Your task to perform on an android device: turn on showing notifications on the lock screen Image 0: 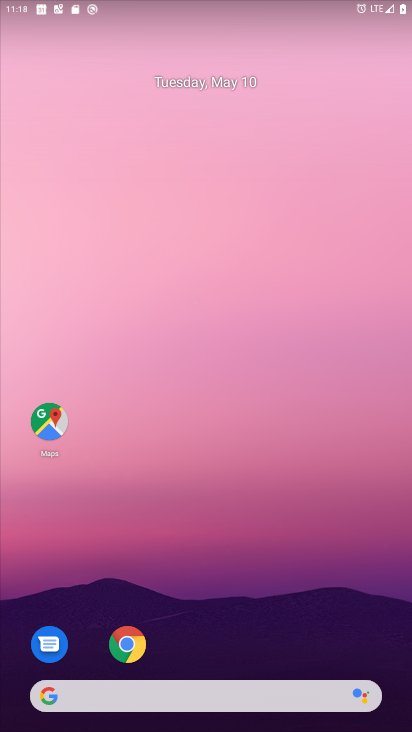
Step 0: drag from (239, 505) to (258, 269)
Your task to perform on an android device: turn on showing notifications on the lock screen Image 1: 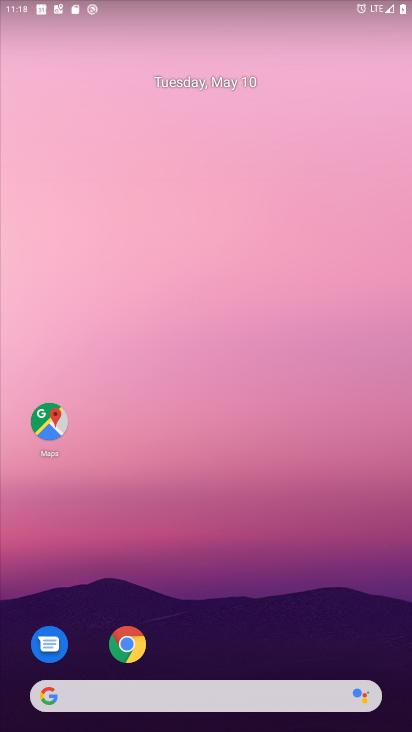
Step 1: drag from (272, 586) to (258, 291)
Your task to perform on an android device: turn on showing notifications on the lock screen Image 2: 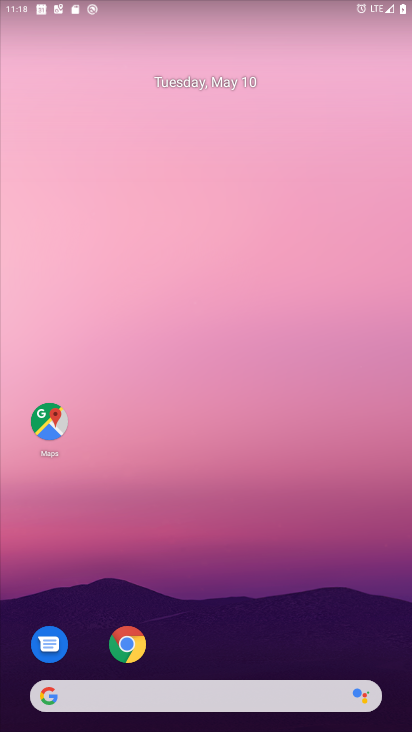
Step 2: drag from (278, 537) to (303, 55)
Your task to perform on an android device: turn on showing notifications on the lock screen Image 3: 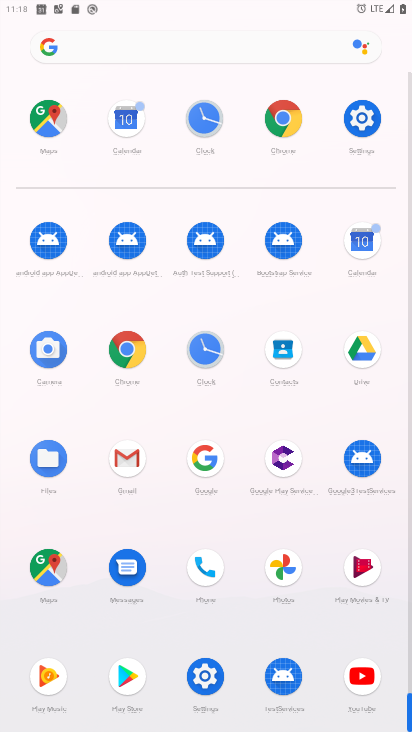
Step 3: click (369, 137)
Your task to perform on an android device: turn on showing notifications on the lock screen Image 4: 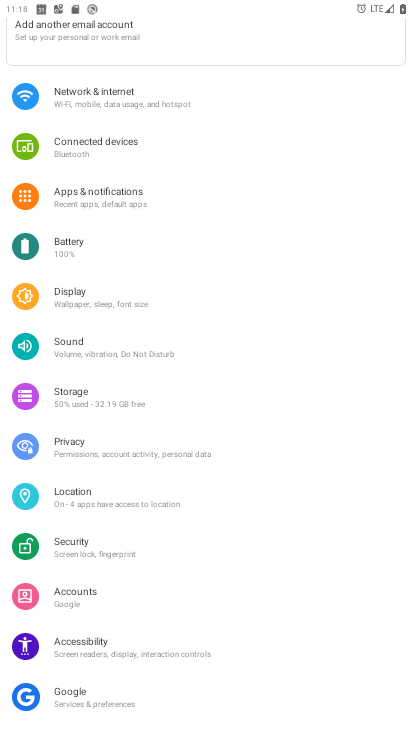
Step 4: click (147, 199)
Your task to perform on an android device: turn on showing notifications on the lock screen Image 5: 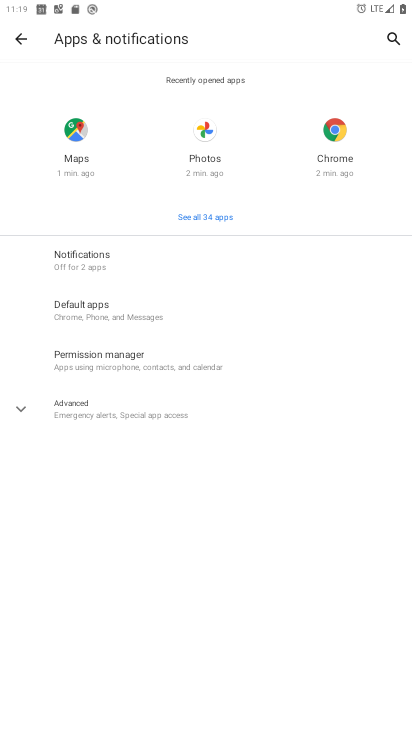
Step 5: click (137, 267)
Your task to perform on an android device: turn on showing notifications on the lock screen Image 6: 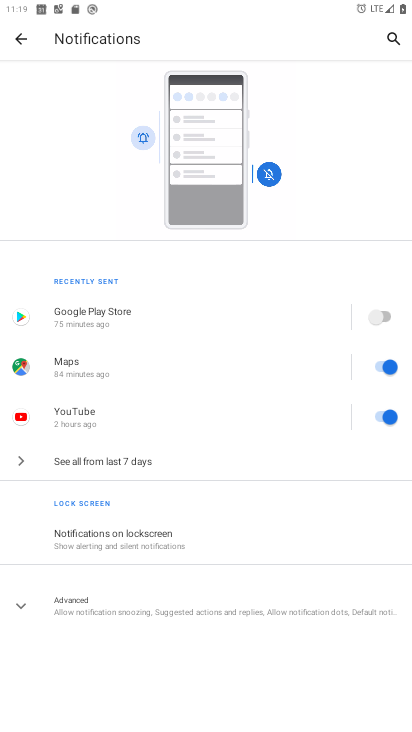
Step 6: click (145, 535)
Your task to perform on an android device: turn on showing notifications on the lock screen Image 7: 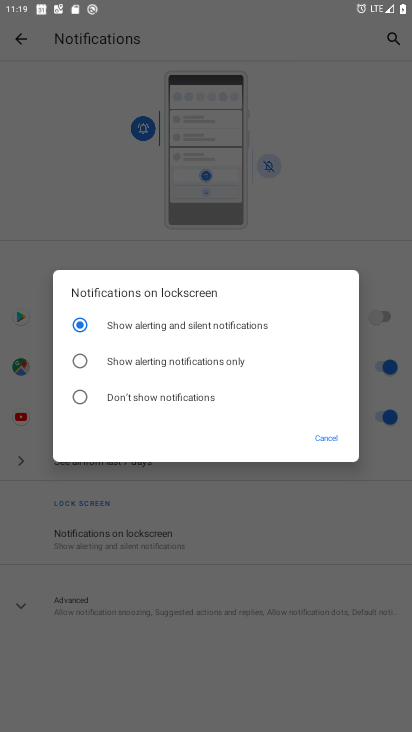
Step 7: task complete